Your task to perform on an android device: Go to sound settings Image 0: 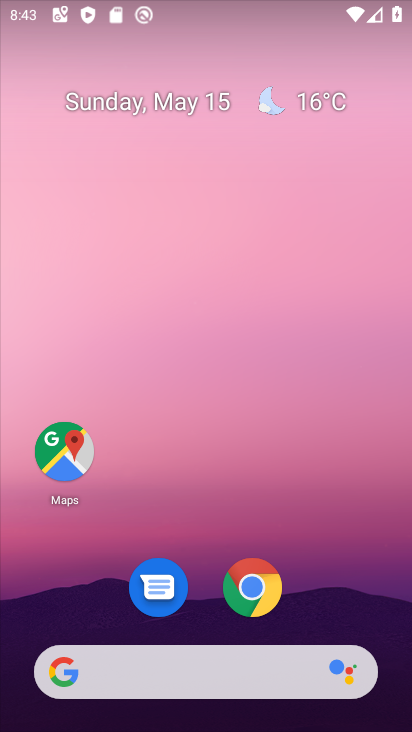
Step 0: click (256, 585)
Your task to perform on an android device: Go to sound settings Image 1: 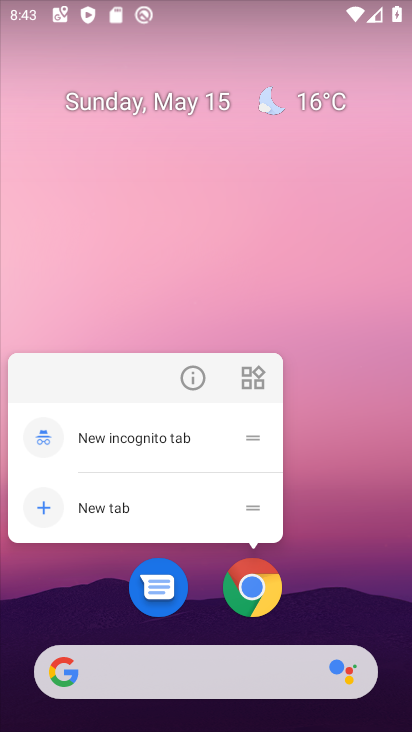
Step 1: drag from (324, 517) to (223, 79)
Your task to perform on an android device: Go to sound settings Image 2: 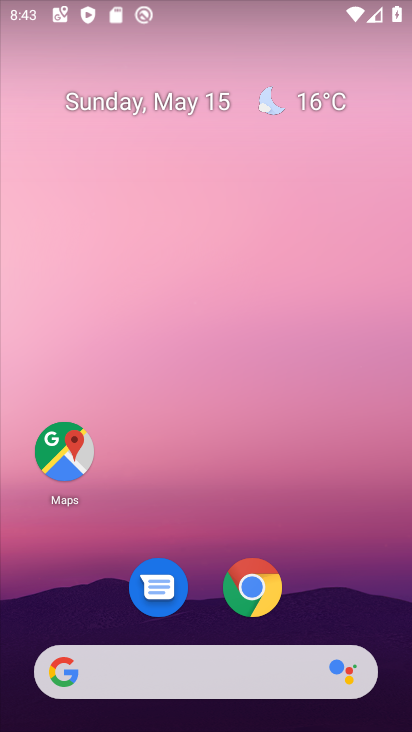
Step 2: drag from (241, 356) to (182, 52)
Your task to perform on an android device: Go to sound settings Image 3: 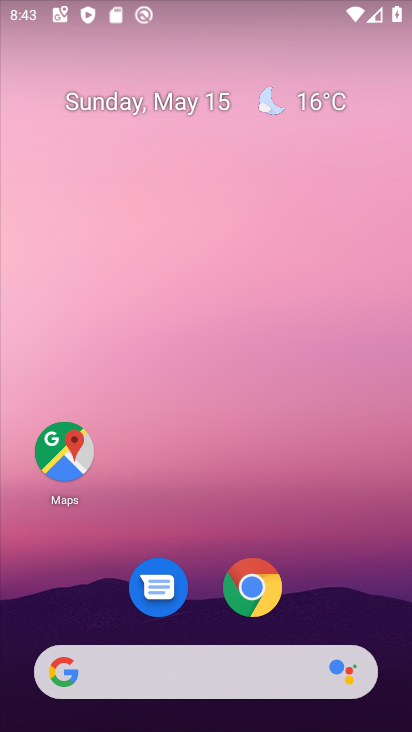
Step 3: drag from (322, 517) to (268, 4)
Your task to perform on an android device: Go to sound settings Image 4: 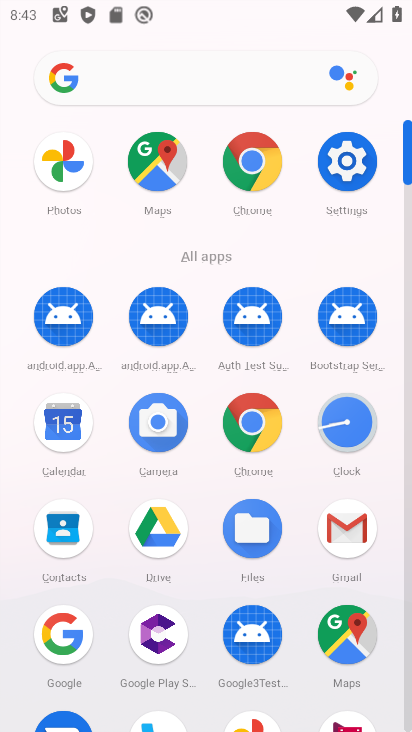
Step 4: click (363, 160)
Your task to perform on an android device: Go to sound settings Image 5: 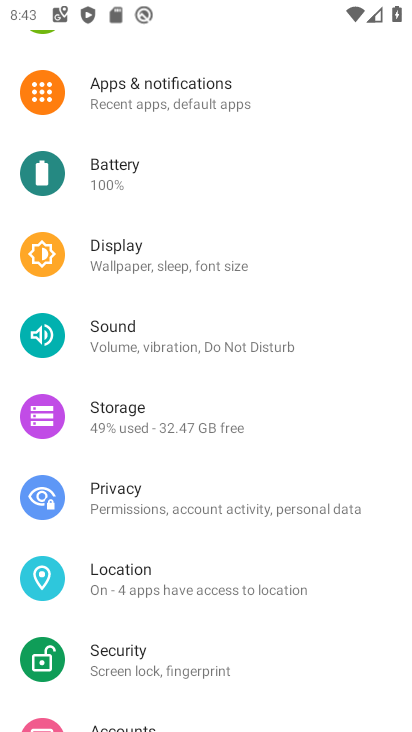
Step 5: click (175, 329)
Your task to perform on an android device: Go to sound settings Image 6: 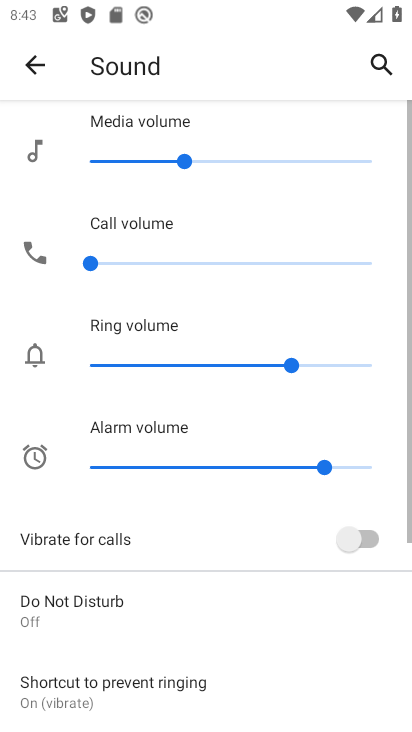
Step 6: task complete